Your task to perform on an android device: turn on data saver in the chrome app Image 0: 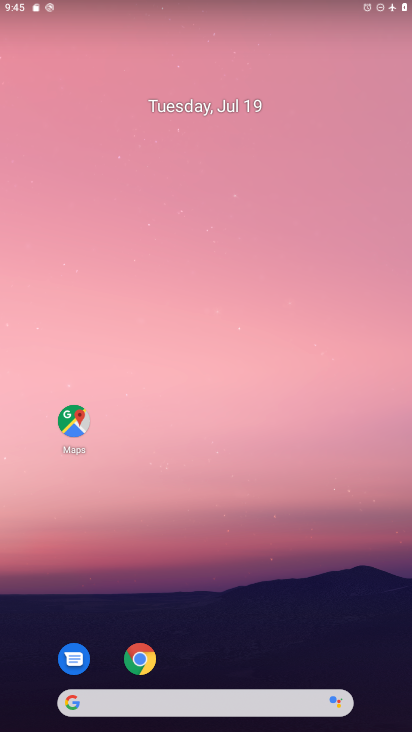
Step 0: drag from (169, 625) to (175, 253)
Your task to perform on an android device: turn on data saver in the chrome app Image 1: 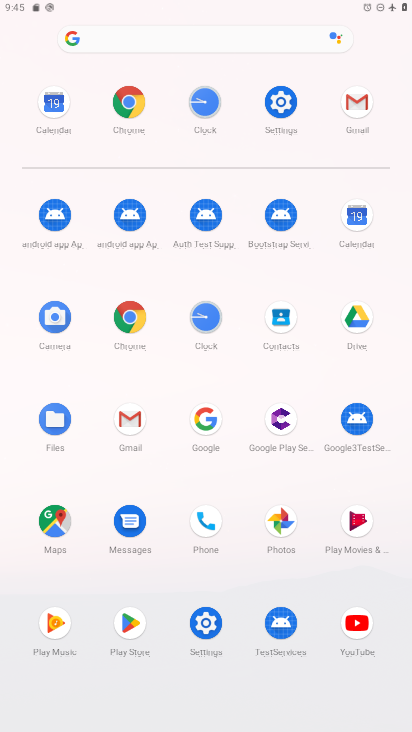
Step 1: click (134, 311)
Your task to perform on an android device: turn on data saver in the chrome app Image 2: 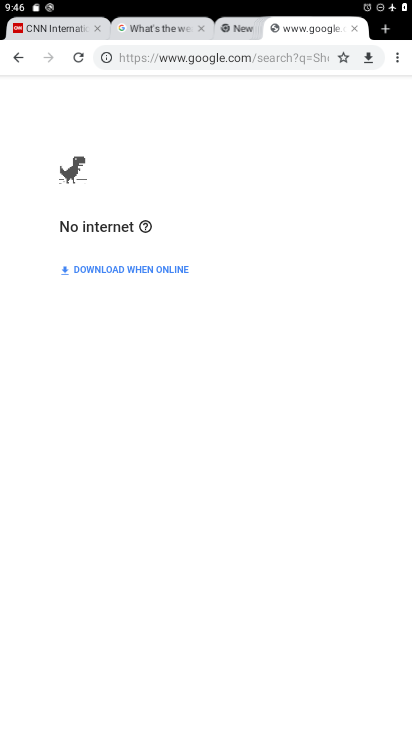
Step 2: click (393, 58)
Your task to perform on an android device: turn on data saver in the chrome app Image 3: 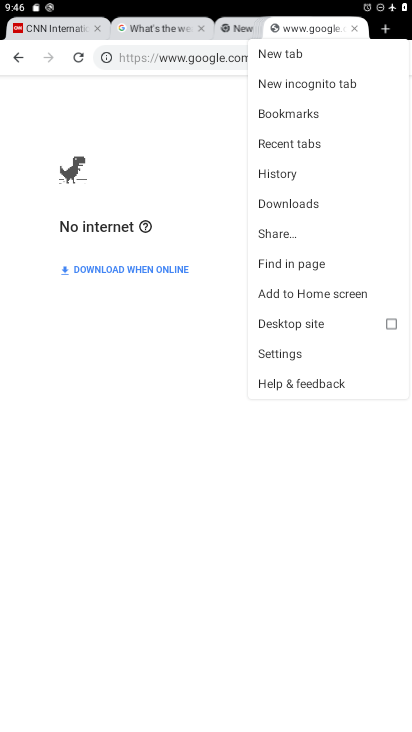
Step 3: click (272, 352)
Your task to perform on an android device: turn on data saver in the chrome app Image 4: 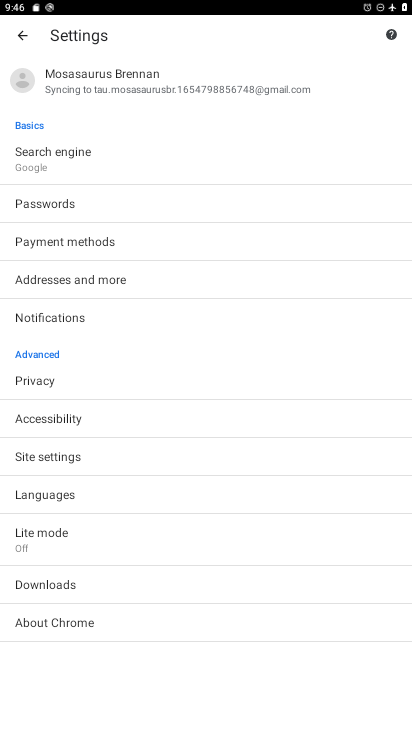
Step 4: click (114, 542)
Your task to perform on an android device: turn on data saver in the chrome app Image 5: 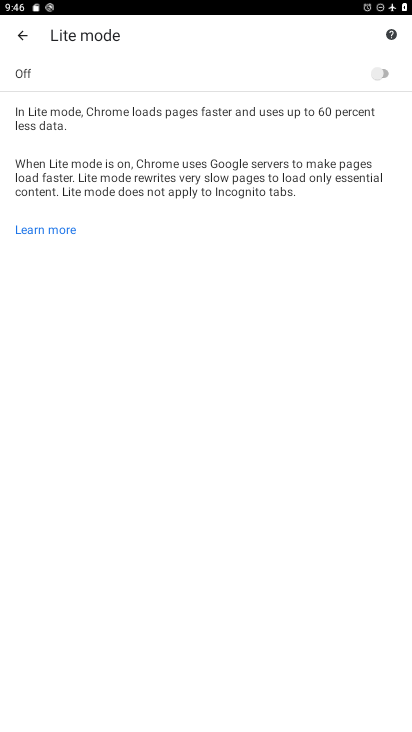
Step 5: click (382, 69)
Your task to perform on an android device: turn on data saver in the chrome app Image 6: 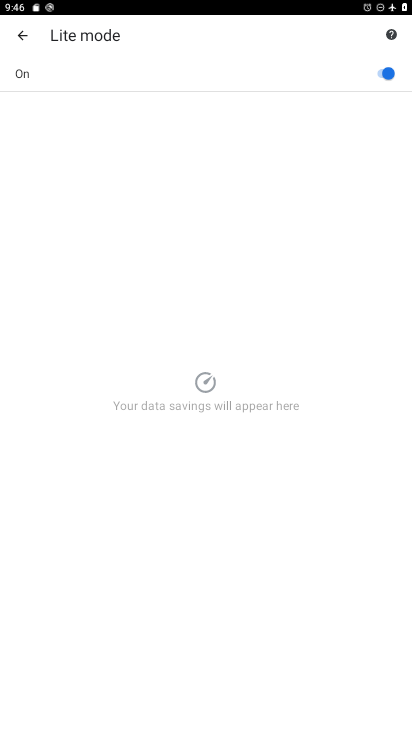
Step 6: task complete